Your task to perform on an android device: set an alarm Image 0: 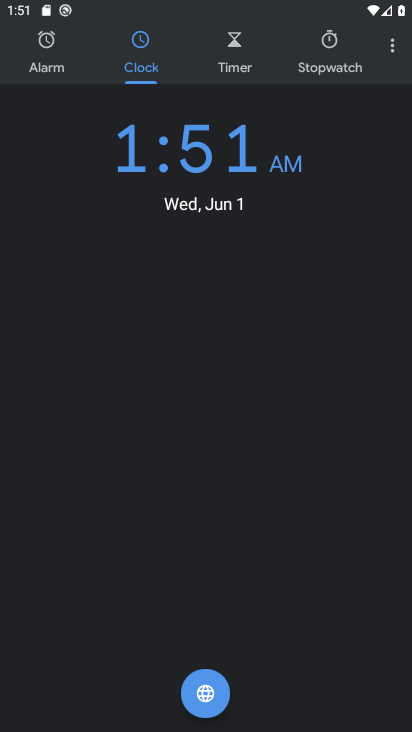
Step 0: click (33, 46)
Your task to perform on an android device: set an alarm Image 1: 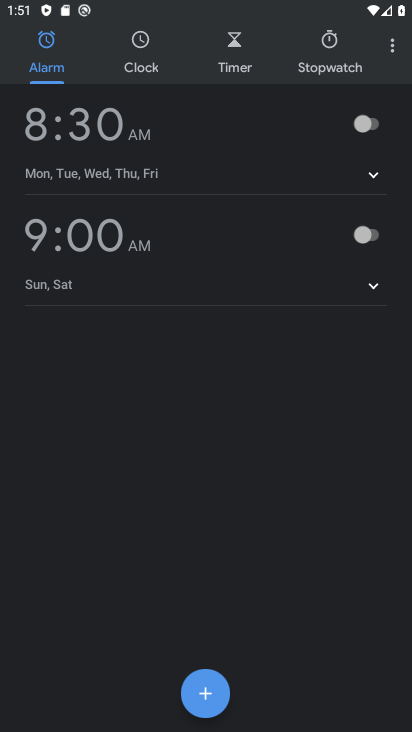
Step 1: click (366, 127)
Your task to perform on an android device: set an alarm Image 2: 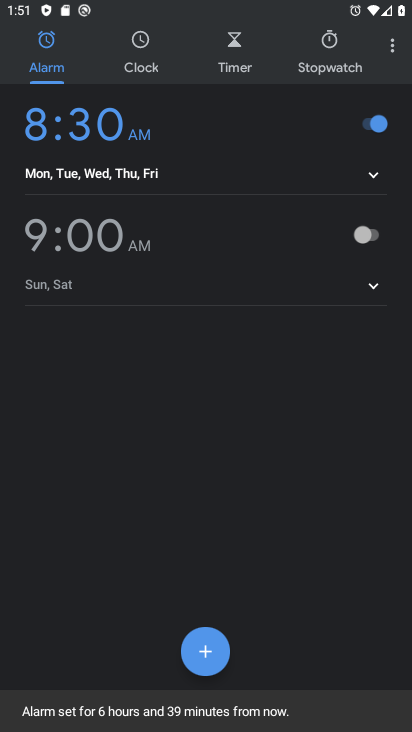
Step 2: task complete